Your task to perform on an android device: change the clock display to digital Image 0: 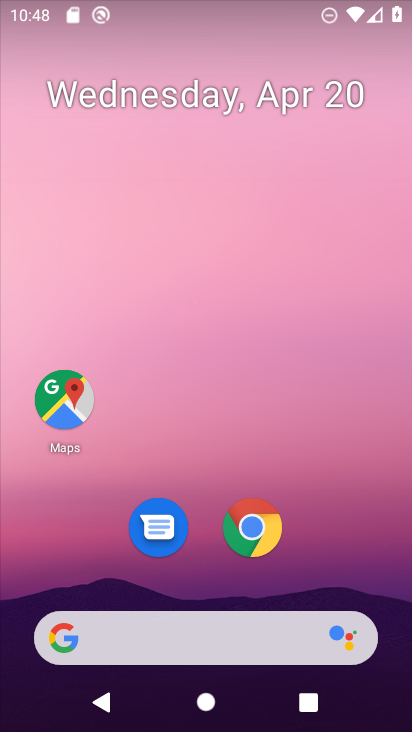
Step 0: drag from (195, 587) to (207, 44)
Your task to perform on an android device: change the clock display to digital Image 1: 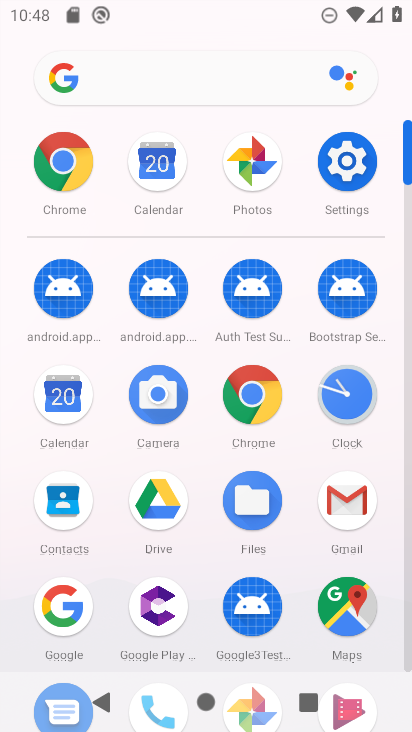
Step 1: click (366, 408)
Your task to perform on an android device: change the clock display to digital Image 2: 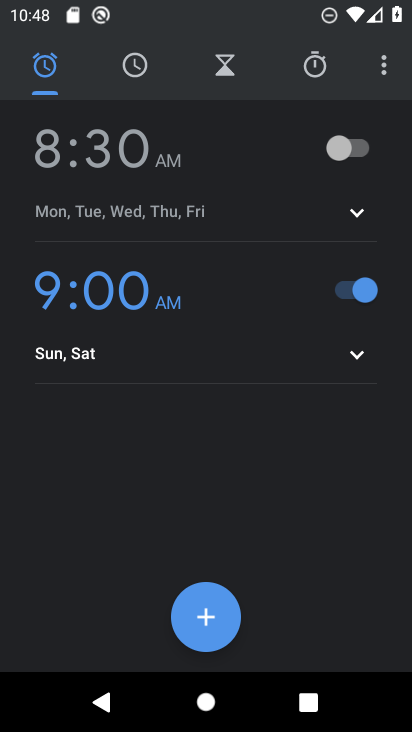
Step 2: click (392, 69)
Your task to perform on an android device: change the clock display to digital Image 3: 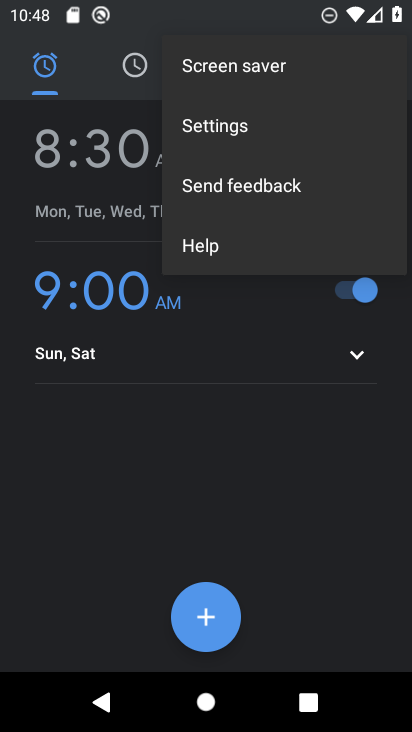
Step 3: click (207, 126)
Your task to perform on an android device: change the clock display to digital Image 4: 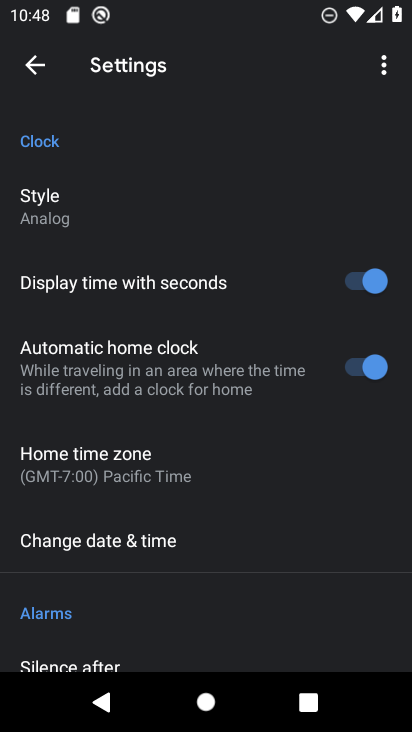
Step 4: click (75, 221)
Your task to perform on an android device: change the clock display to digital Image 5: 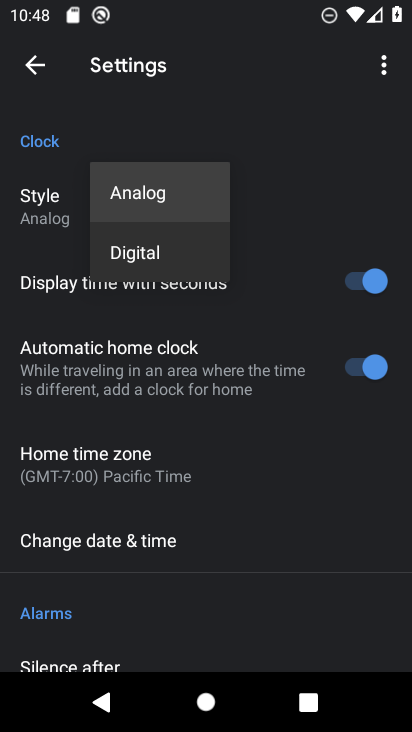
Step 5: click (151, 253)
Your task to perform on an android device: change the clock display to digital Image 6: 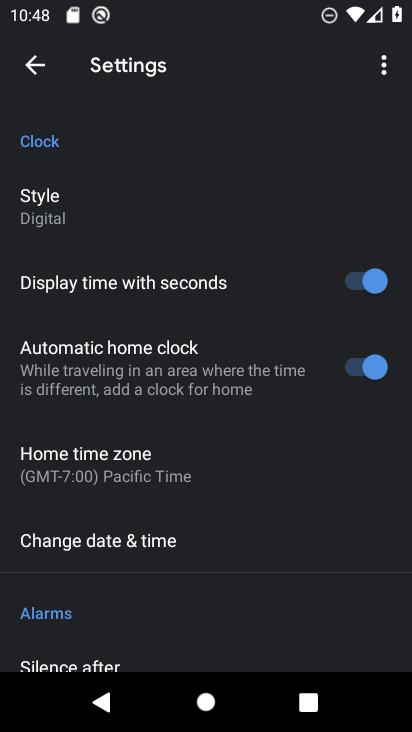
Step 6: task complete